Your task to perform on an android device: turn pop-ups off in chrome Image 0: 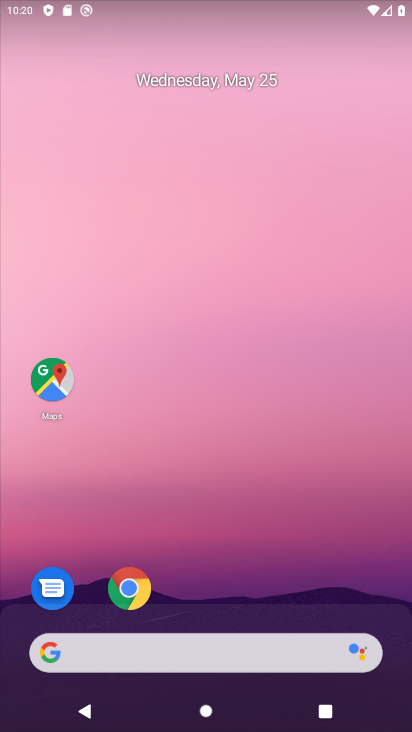
Step 0: click (143, 593)
Your task to perform on an android device: turn pop-ups off in chrome Image 1: 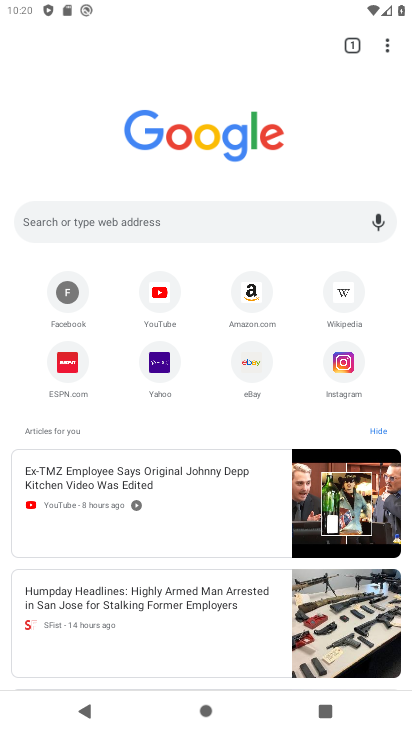
Step 1: click (392, 41)
Your task to perform on an android device: turn pop-ups off in chrome Image 2: 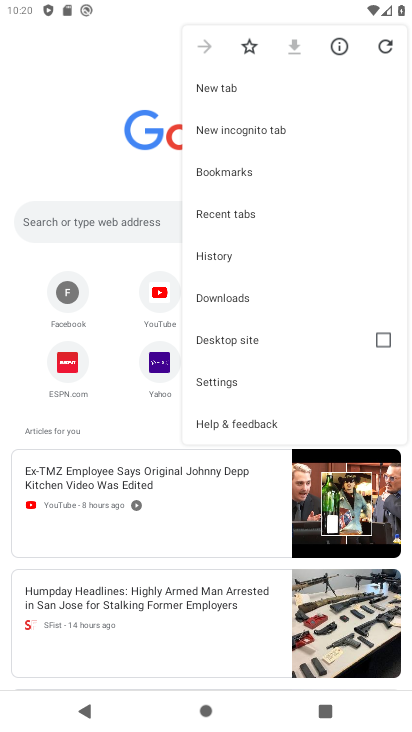
Step 2: click (217, 386)
Your task to perform on an android device: turn pop-ups off in chrome Image 3: 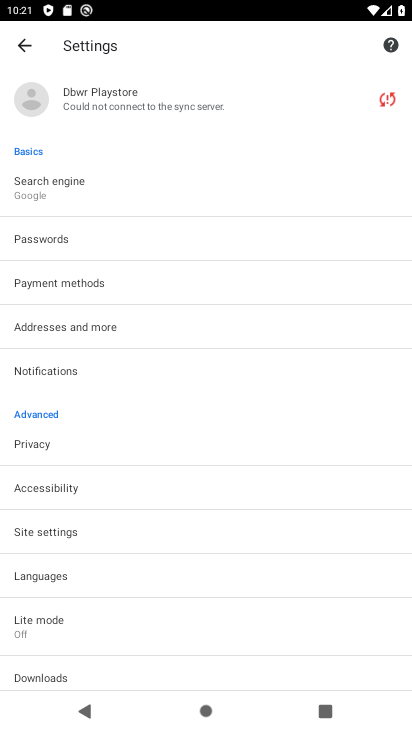
Step 3: click (197, 534)
Your task to perform on an android device: turn pop-ups off in chrome Image 4: 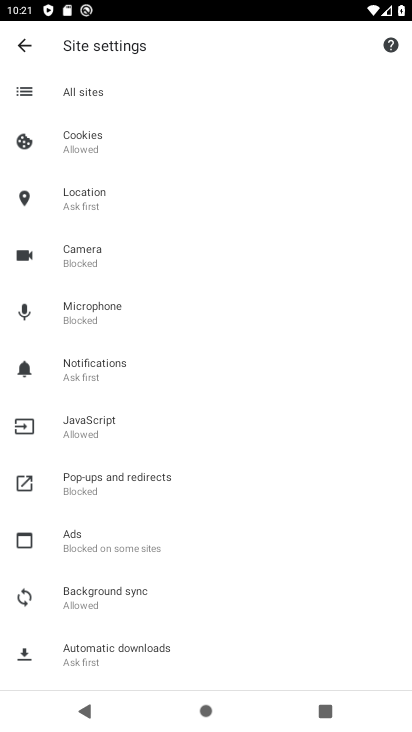
Step 4: click (117, 469)
Your task to perform on an android device: turn pop-ups off in chrome Image 5: 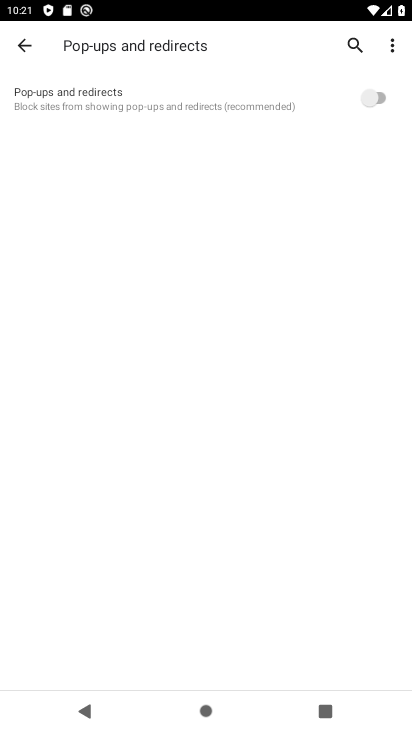
Step 5: task complete